Your task to perform on an android device: stop showing notifications on the lock screen Image 0: 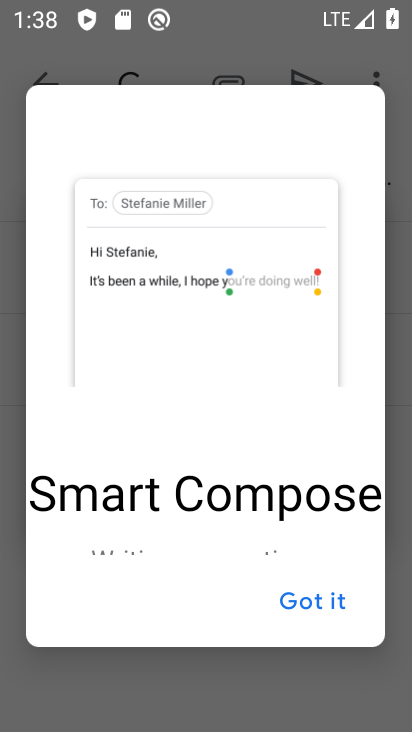
Step 0: press home button
Your task to perform on an android device: stop showing notifications on the lock screen Image 1: 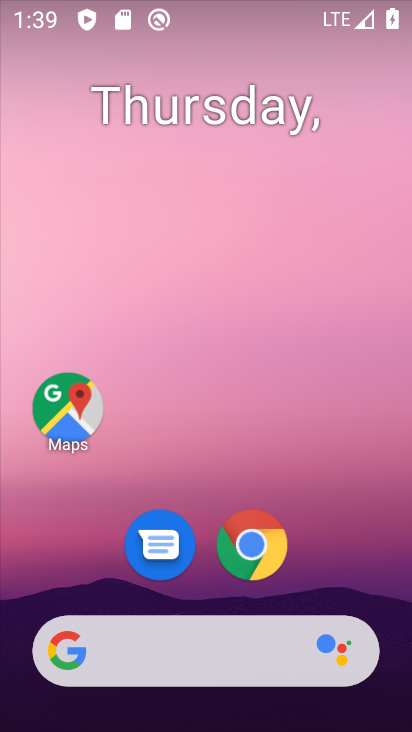
Step 1: drag from (169, 672) to (170, 72)
Your task to perform on an android device: stop showing notifications on the lock screen Image 2: 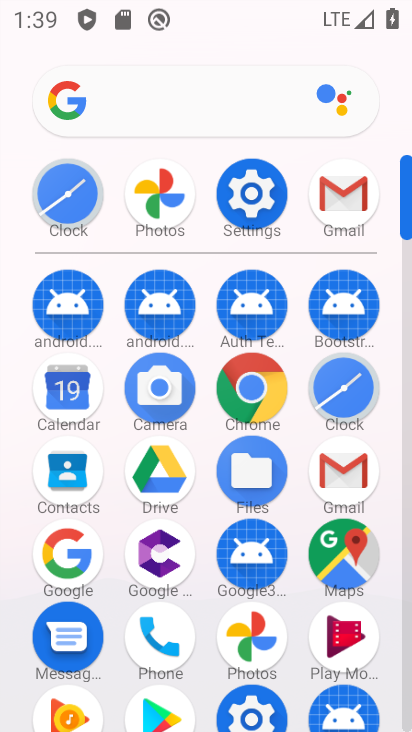
Step 2: click (269, 182)
Your task to perform on an android device: stop showing notifications on the lock screen Image 3: 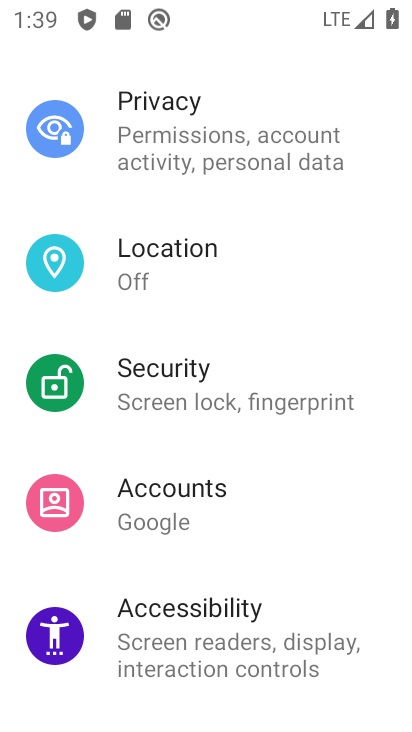
Step 3: drag from (293, 274) to (228, 618)
Your task to perform on an android device: stop showing notifications on the lock screen Image 4: 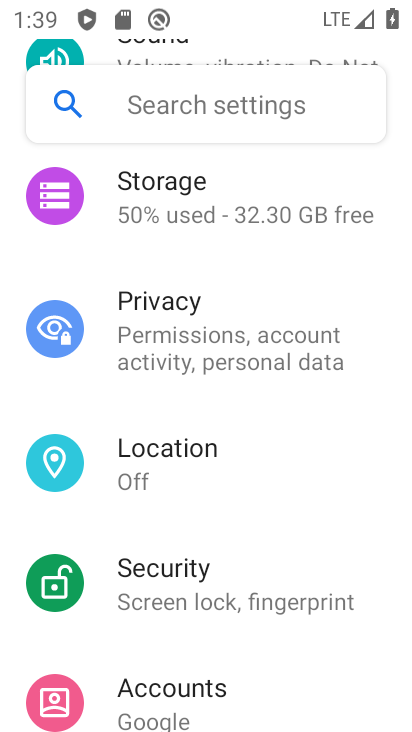
Step 4: drag from (321, 177) to (253, 630)
Your task to perform on an android device: stop showing notifications on the lock screen Image 5: 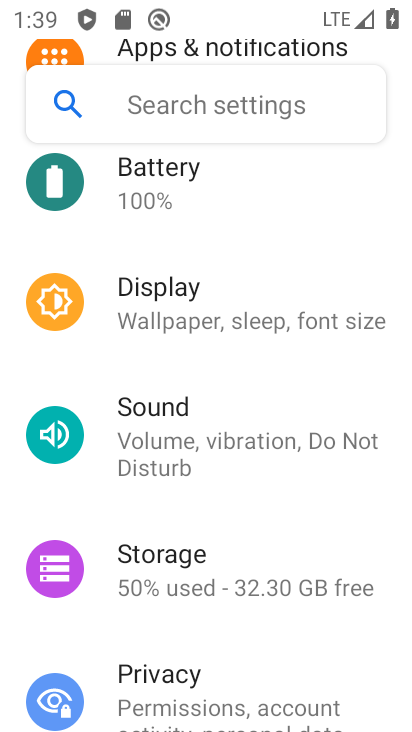
Step 5: drag from (360, 233) to (288, 607)
Your task to perform on an android device: stop showing notifications on the lock screen Image 6: 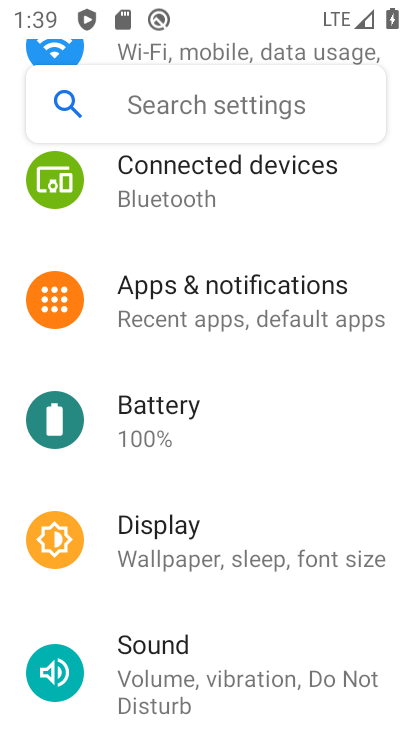
Step 6: click (280, 303)
Your task to perform on an android device: stop showing notifications on the lock screen Image 7: 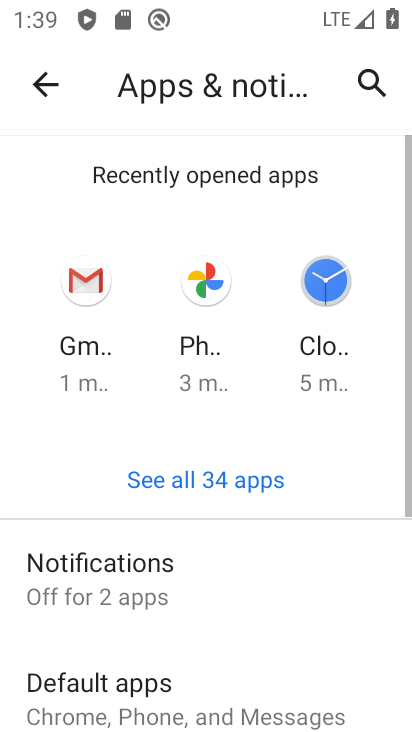
Step 7: click (152, 559)
Your task to perform on an android device: stop showing notifications on the lock screen Image 8: 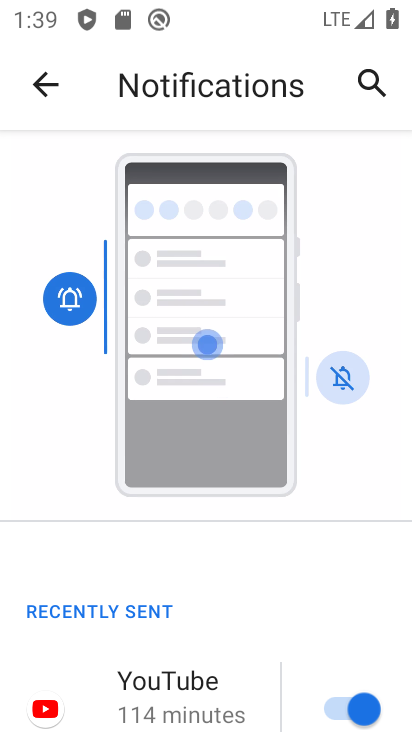
Step 8: drag from (220, 639) to (147, 203)
Your task to perform on an android device: stop showing notifications on the lock screen Image 9: 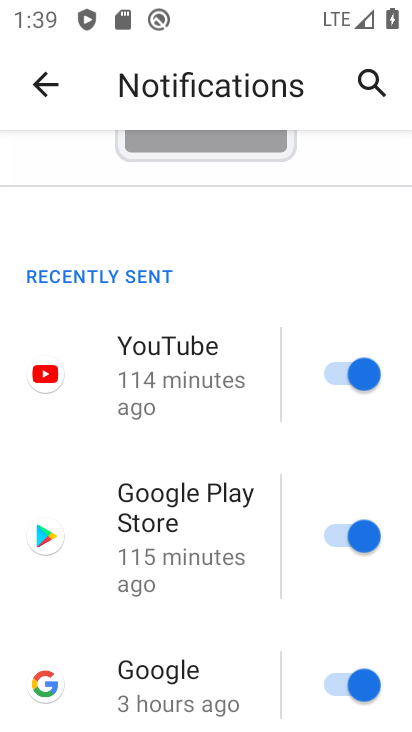
Step 9: drag from (232, 680) to (232, 62)
Your task to perform on an android device: stop showing notifications on the lock screen Image 10: 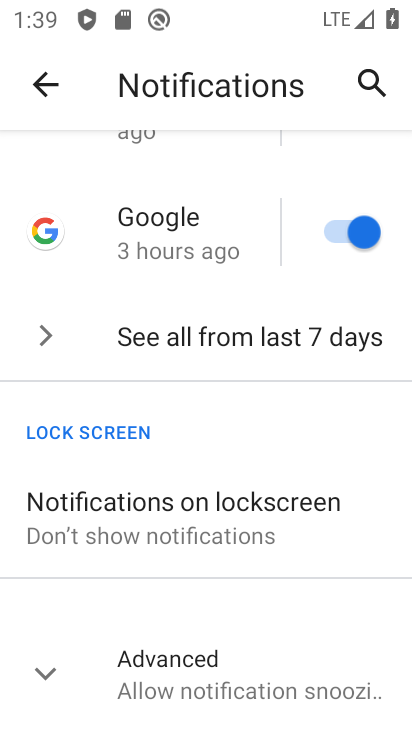
Step 10: click (217, 535)
Your task to perform on an android device: stop showing notifications on the lock screen Image 11: 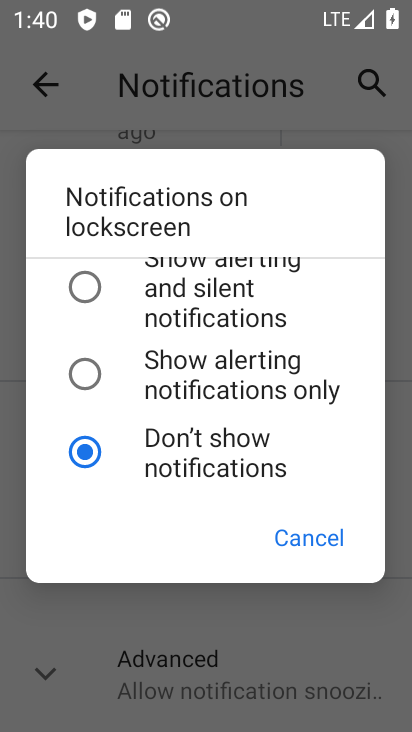
Step 11: task complete